Your task to perform on an android device: check battery use Image 0: 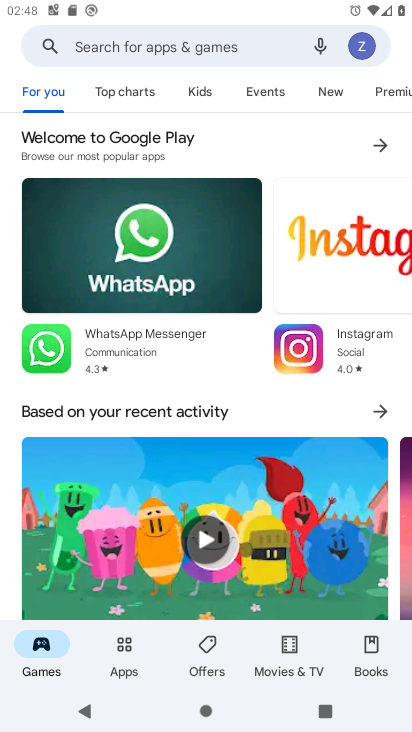
Step 0: press home button
Your task to perform on an android device: check battery use Image 1: 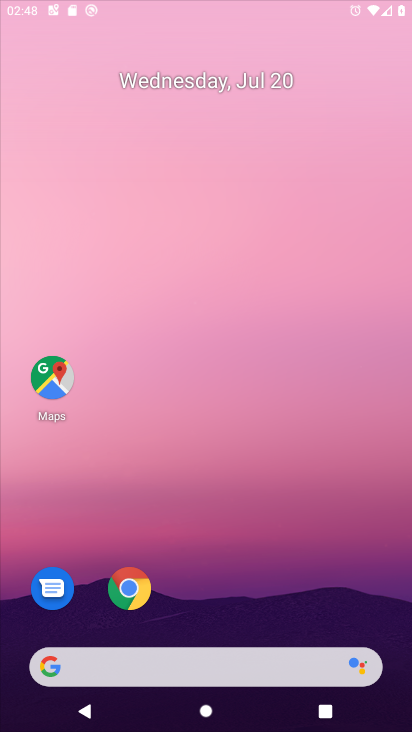
Step 1: drag from (221, 658) to (261, 320)
Your task to perform on an android device: check battery use Image 2: 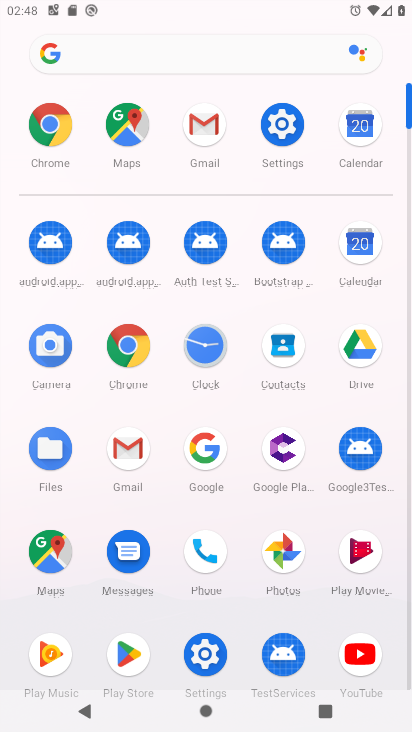
Step 2: click (286, 121)
Your task to perform on an android device: check battery use Image 3: 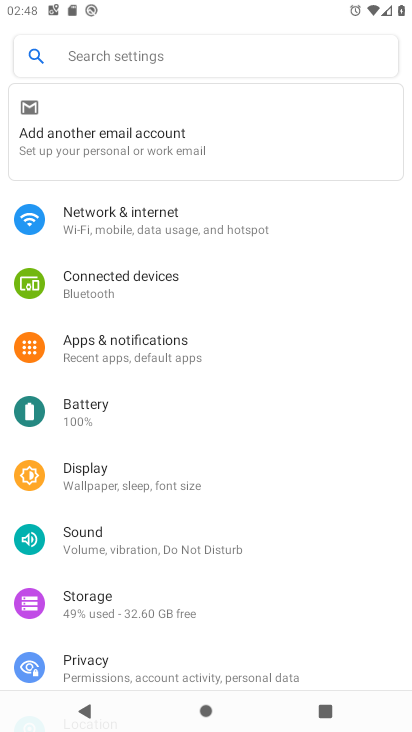
Step 3: click (111, 402)
Your task to perform on an android device: check battery use Image 4: 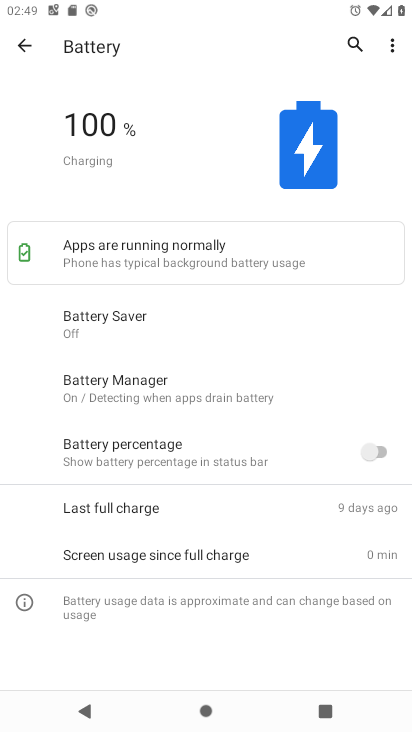
Step 4: task complete